Your task to perform on an android device: Is it going to rain this weekend? Image 0: 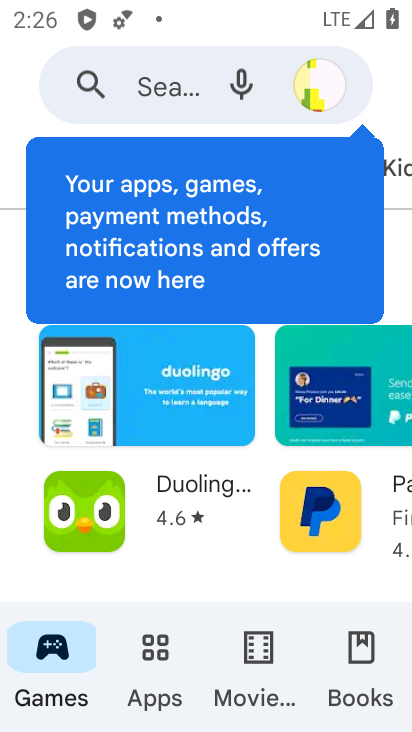
Step 0: press home button
Your task to perform on an android device: Is it going to rain this weekend? Image 1: 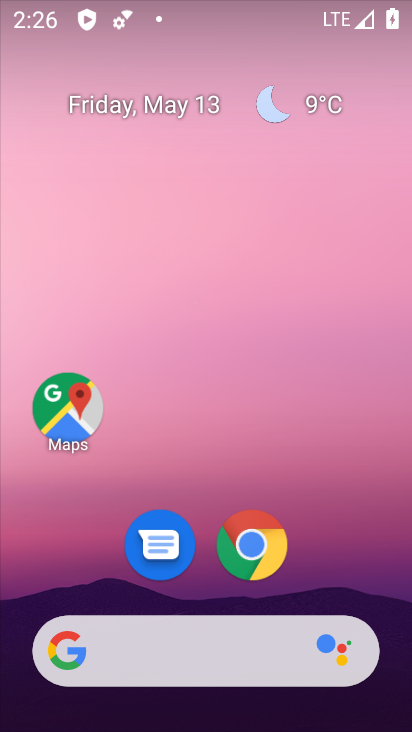
Step 1: click (272, 576)
Your task to perform on an android device: Is it going to rain this weekend? Image 2: 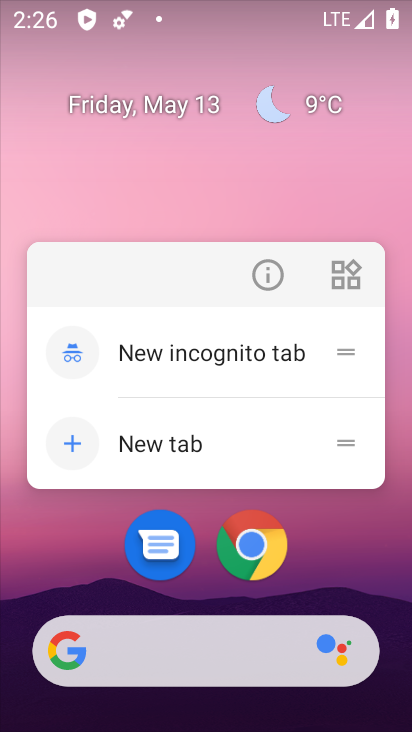
Step 2: click (260, 565)
Your task to perform on an android device: Is it going to rain this weekend? Image 3: 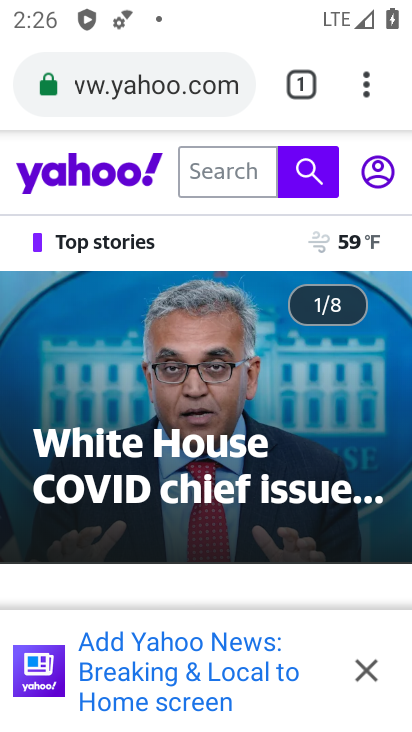
Step 3: click (205, 83)
Your task to perform on an android device: Is it going to rain this weekend? Image 4: 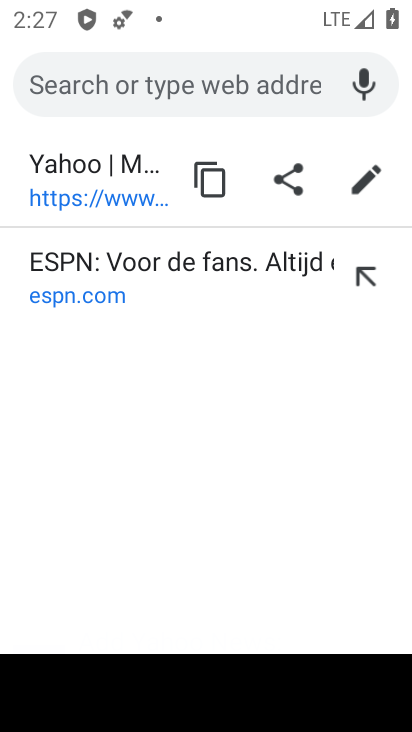
Step 4: type "Is it going to rain this weekend?"
Your task to perform on an android device: Is it going to rain this weekend? Image 5: 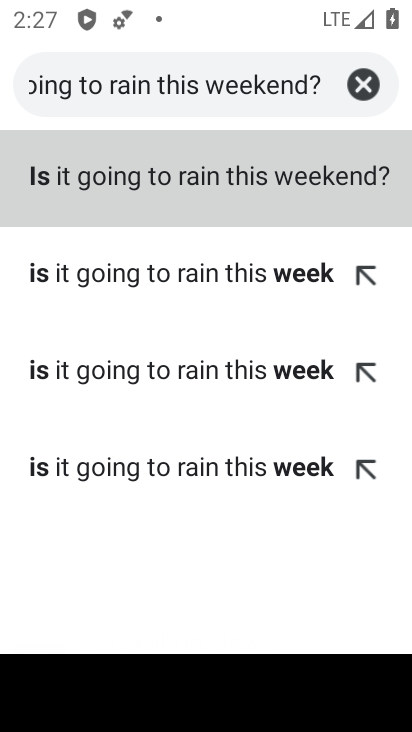
Step 5: click (250, 180)
Your task to perform on an android device: Is it going to rain this weekend? Image 6: 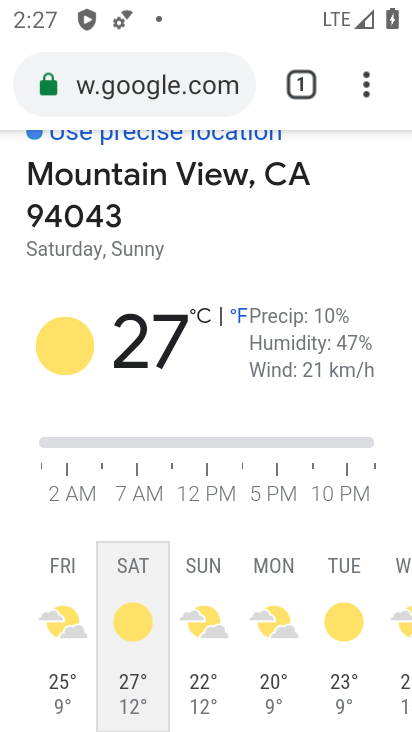
Step 6: task complete